Your task to perform on an android device: Open calendar and show me the second week of next month Image 0: 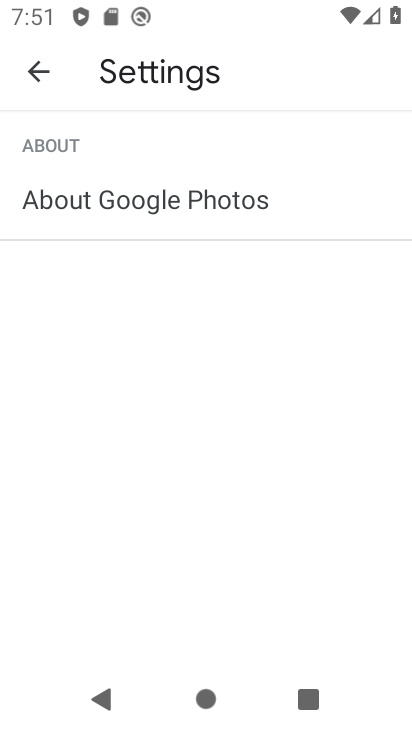
Step 0: press home button
Your task to perform on an android device: Open calendar and show me the second week of next month Image 1: 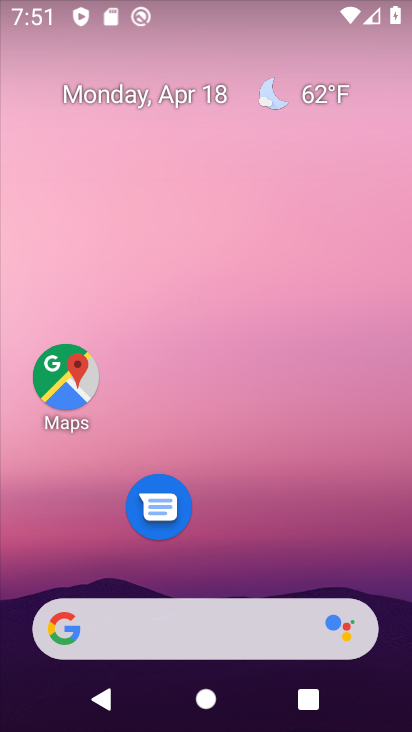
Step 1: drag from (265, 523) to (213, 148)
Your task to perform on an android device: Open calendar and show me the second week of next month Image 2: 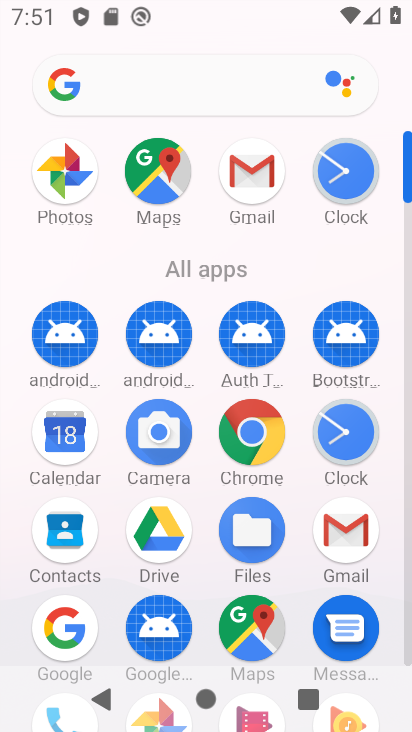
Step 2: click (53, 452)
Your task to perform on an android device: Open calendar and show me the second week of next month Image 3: 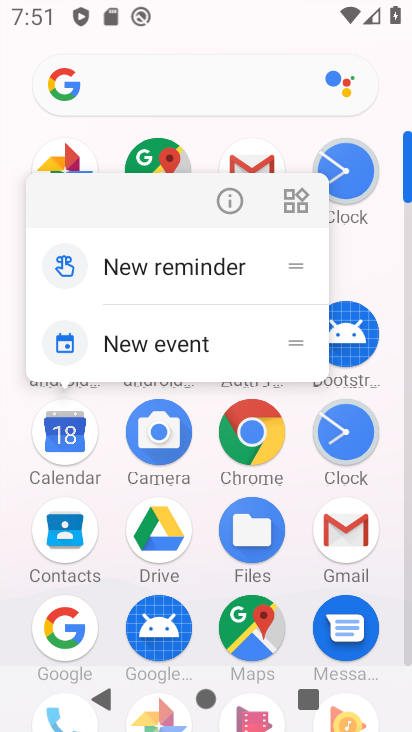
Step 3: click (53, 452)
Your task to perform on an android device: Open calendar and show me the second week of next month Image 4: 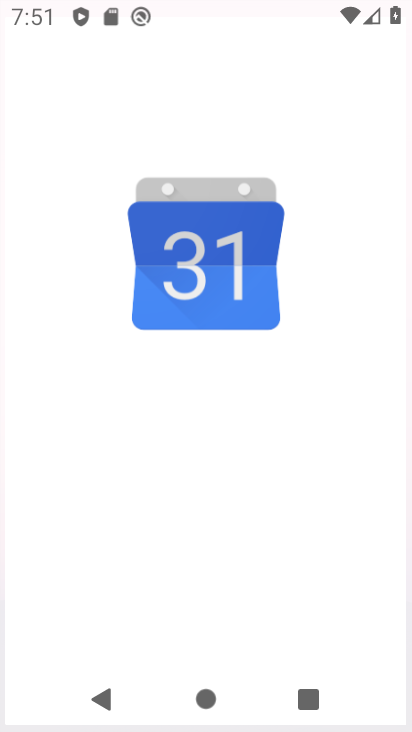
Step 4: click (53, 452)
Your task to perform on an android device: Open calendar and show me the second week of next month Image 5: 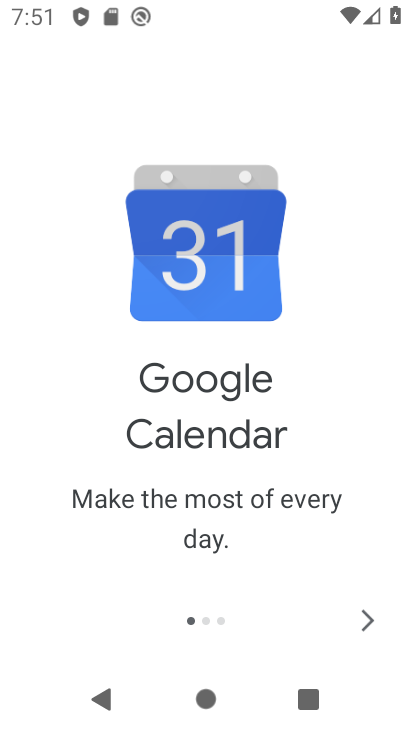
Step 5: click (365, 618)
Your task to perform on an android device: Open calendar and show me the second week of next month Image 6: 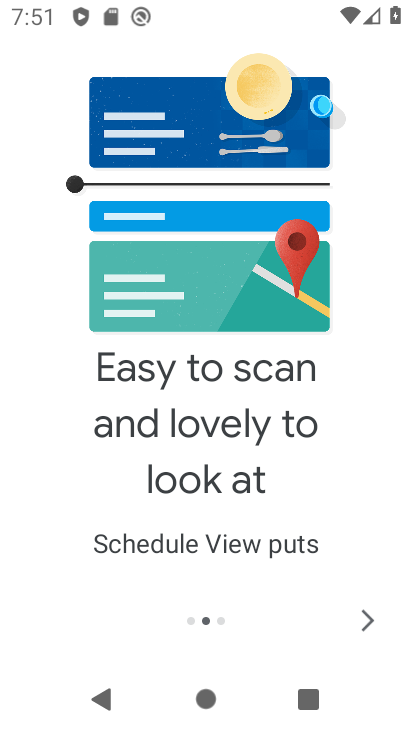
Step 6: click (365, 618)
Your task to perform on an android device: Open calendar and show me the second week of next month Image 7: 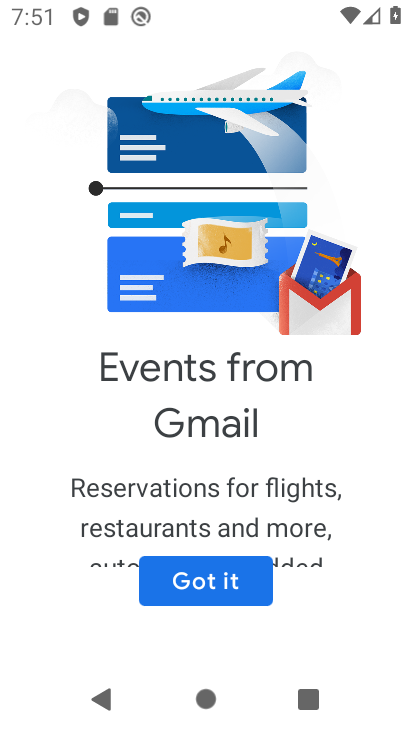
Step 7: click (365, 618)
Your task to perform on an android device: Open calendar and show me the second week of next month Image 8: 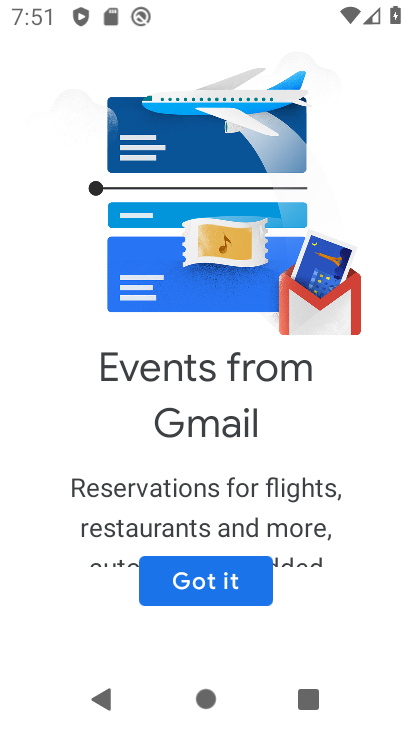
Step 8: click (233, 570)
Your task to perform on an android device: Open calendar and show me the second week of next month Image 9: 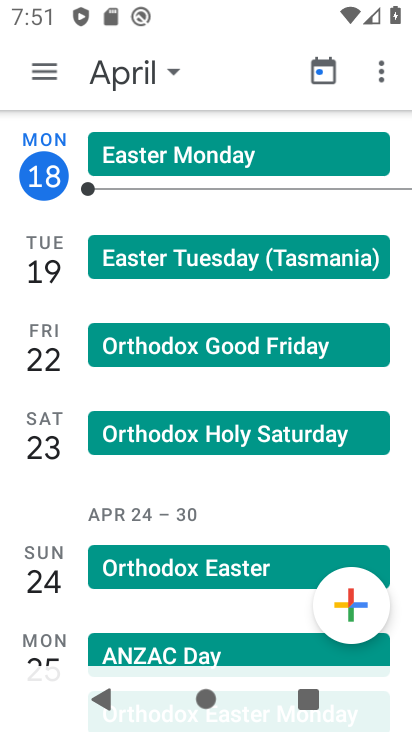
Step 9: click (167, 72)
Your task to perform on an android device: Open calendar and show me the second week of next month Image 10: 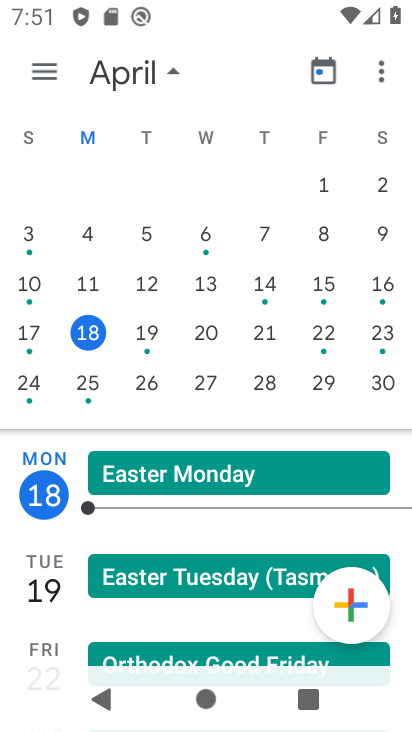
Step 10: drag from (356, 231) to (1, 271)
Your task to perform on an android device: Open calendar and show me the second week of next month Image 11: 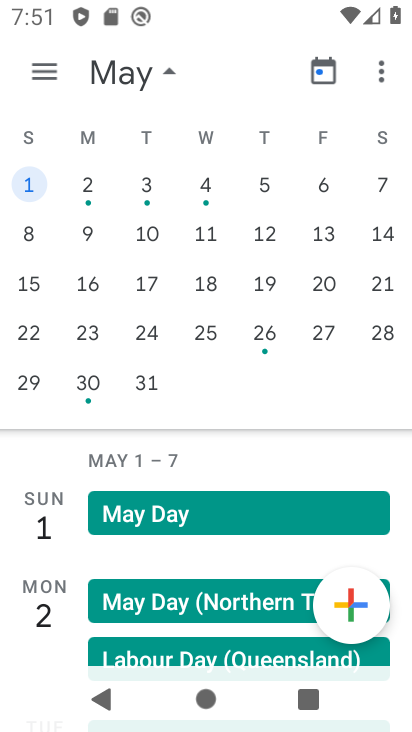
Step 11: drag from (242, 570) to (187, 18)
Your task to perform on an android device: Open calendar and show me the second week of next month Image 12: 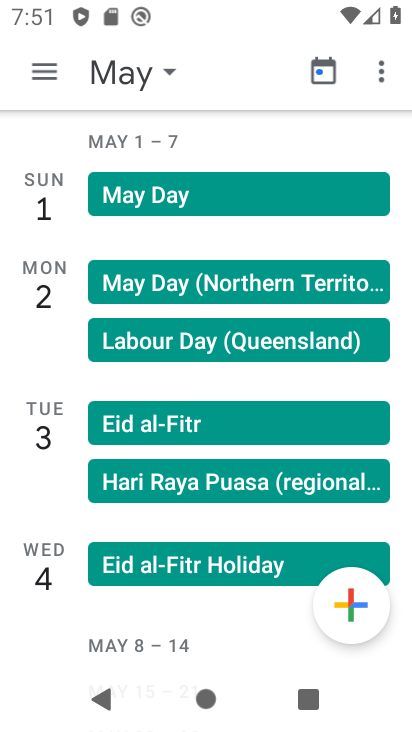
Step 12: drag from (231, 556) to (273, 32)
Your task to perform on an android device: Open calendar and show me the second week of next month Image 13: 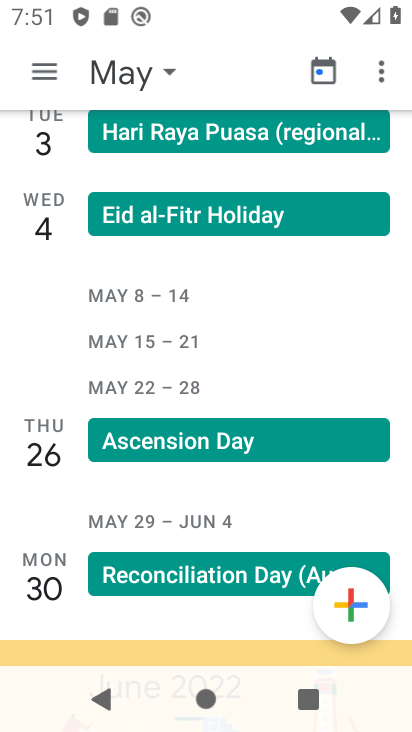
Step 13: click (155, 295)
Your task to perform on an android device: Open calendar and show me the second week of next month Image 14: 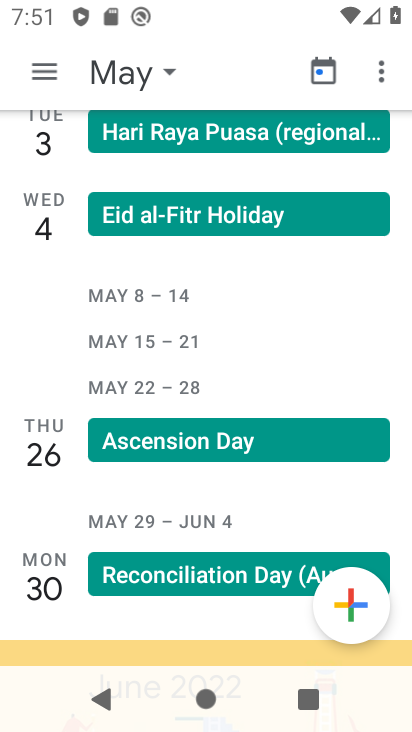
Step 14: click (155, 295)
Your task to perform on an android device: Open calendar and show me the second week of next month Image 15: 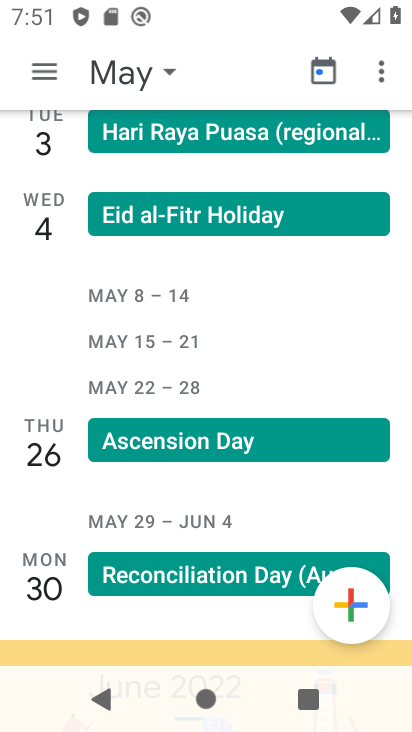
Step 15: task complete